Your task to perform on an android device: toggle sleep mode Image 0: 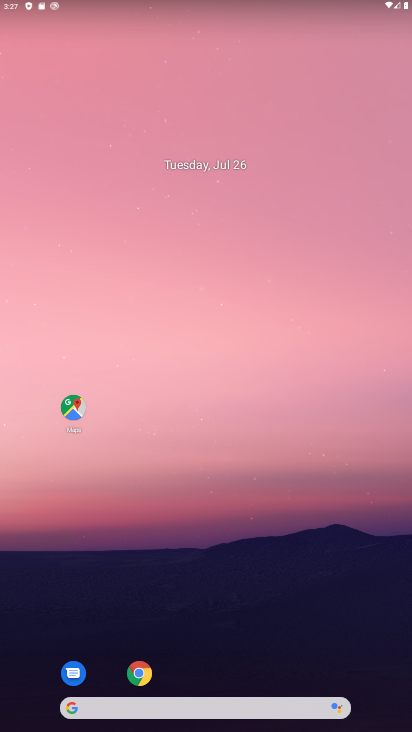
Step 0: drag from (244, 630) to (275, 157)
Your task to perform on an android device: toggle sleep mode Image 1: 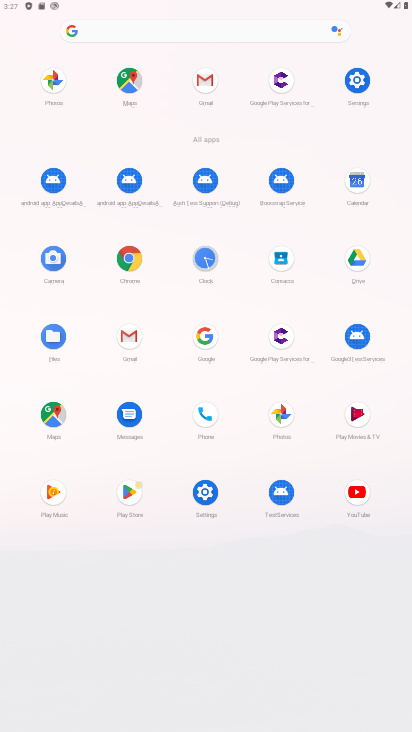
Step 1: click (354, 79)
Your task to perform on an android device: toggle sleep mode Image 2: 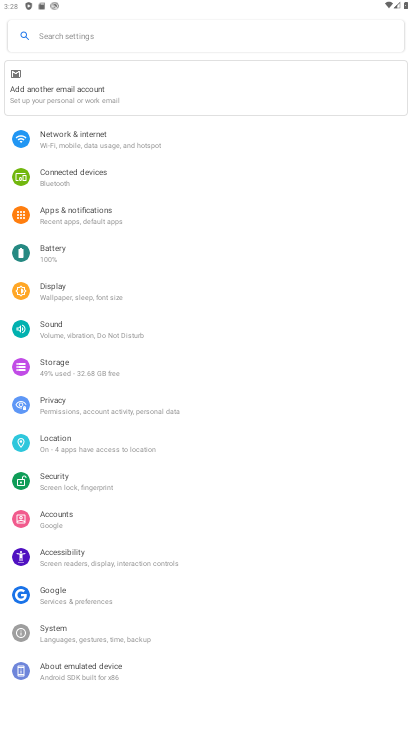
Step 2: task complete